Your task to perform on an android device: Search for a 36" x 48" whiteboard on Home Depot Image 0: 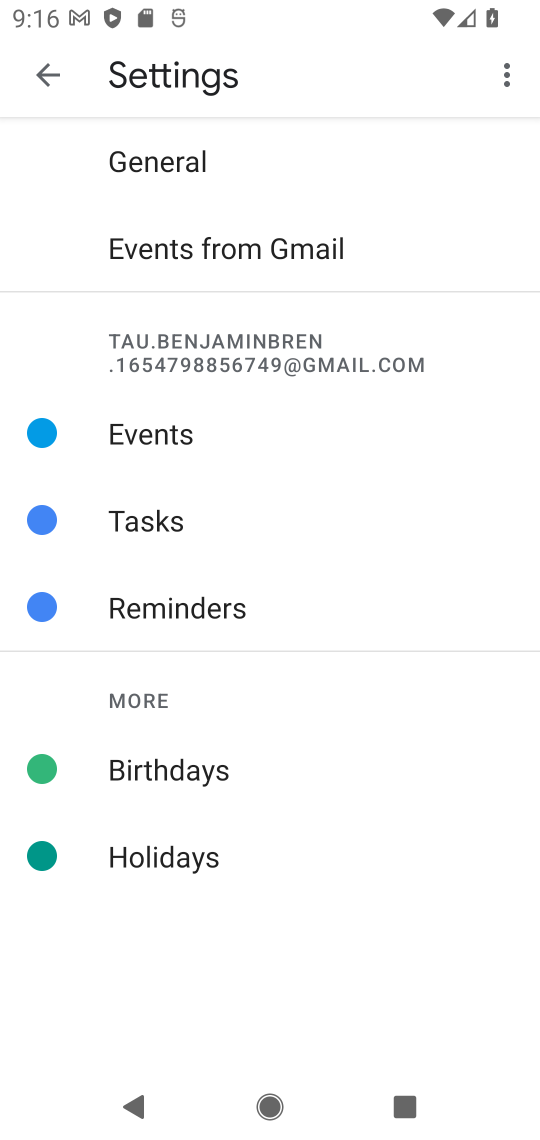
Step 0: press home button
Your task to perform on an android device: Search for a 36" x 48" whiteboard on Home Depot Image 1: 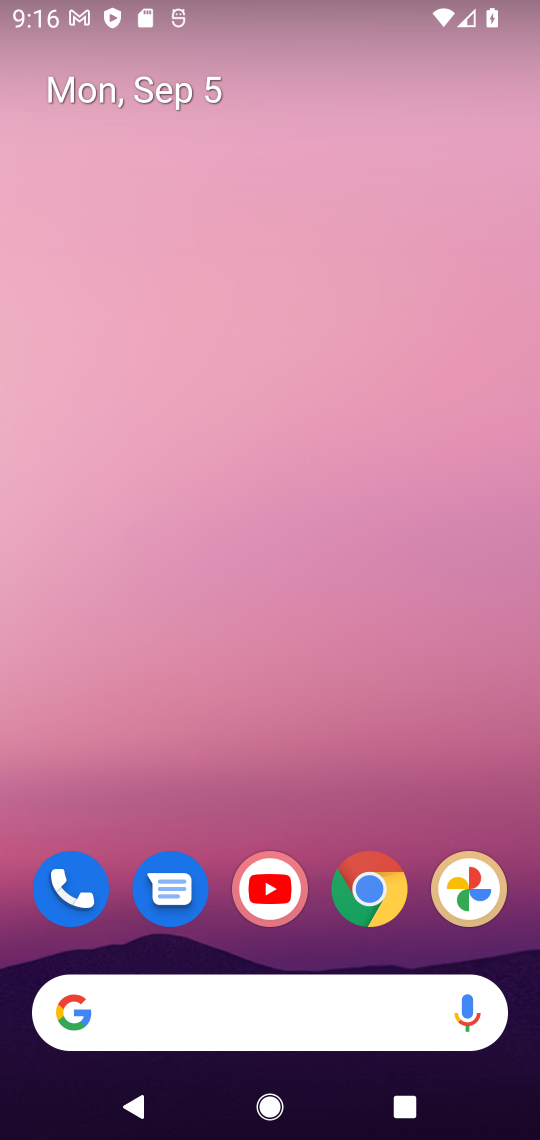
Step 1: click (218, 1032)
Your task to perform on an android device: Search for a 36" x 48" whiteboard on Home Depot Image 2: 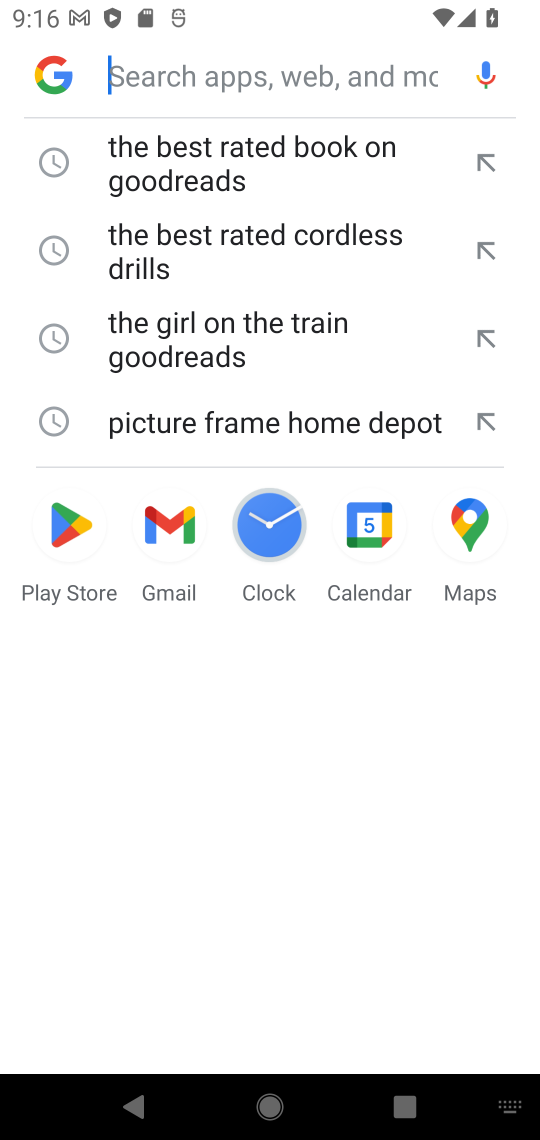
Step 2: type "whiteboard on Home Depot"
Your task to perform on an android device: Search for a 36" x 48" whiteboard on Home Depot Image 3: 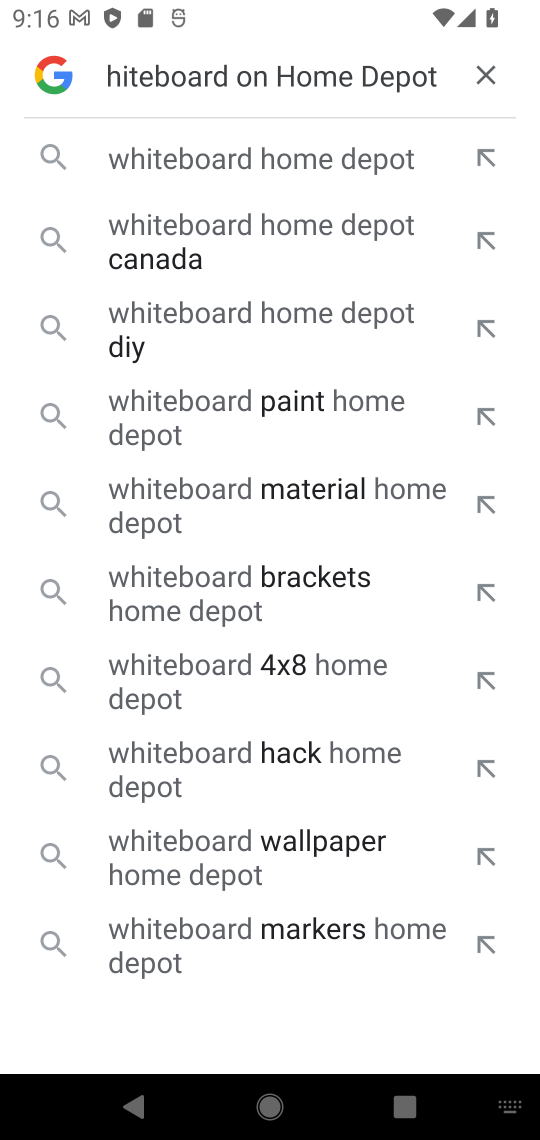
Step 3: click (291, 160)
Your task to perform on an android device: Search for a 36" x 48" whiteboard on Home Depot Image 4: 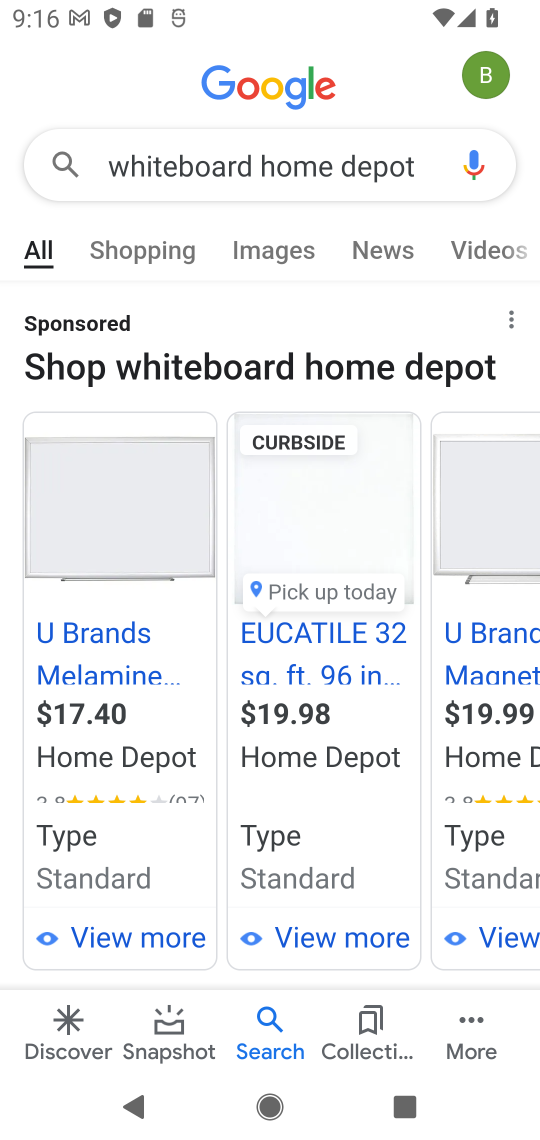
Step 4: drag from (298, 687) to (342, 137)
Your task to perform on an android device: Search for a 36" x 48" whiteboard on Home Depot Image 5: 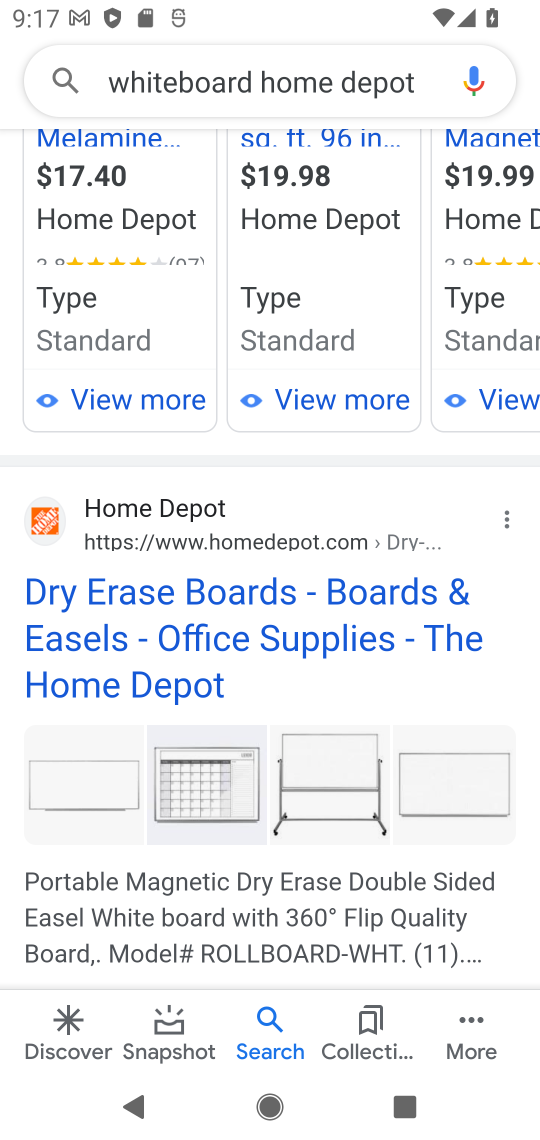
Step 5: click (158, 646)
Your task to perform on an android device: Search for a 36" x 48" whiteboard on Home Depot Image 6: 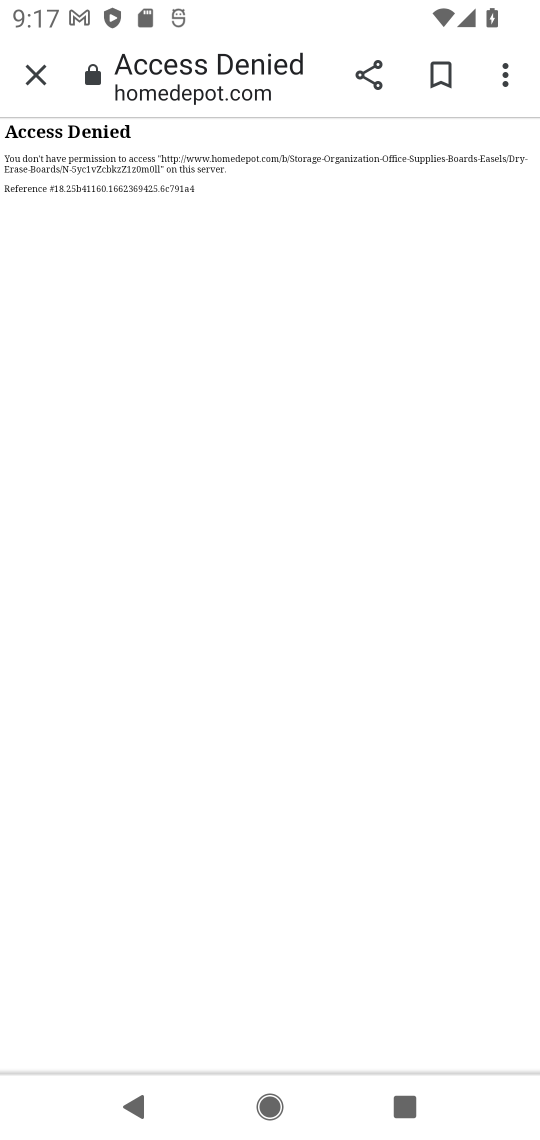
Step 6: task complete